Your task to perform on an android device: Open the map Image 0: 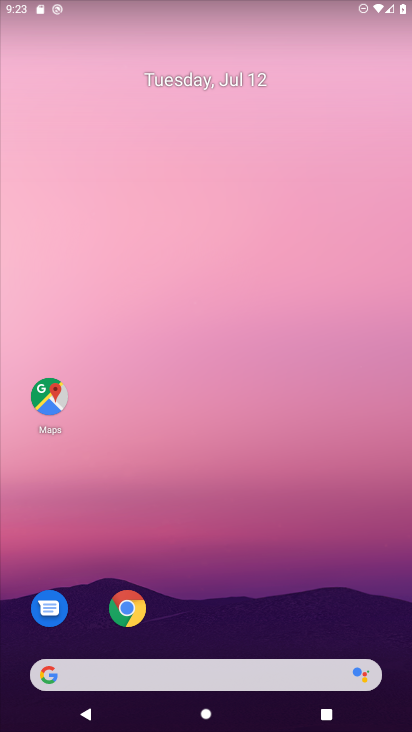
Step 0: drag from (198, 645) to (199, 175)
Your task to perform on an android device: Open the map Image 1: 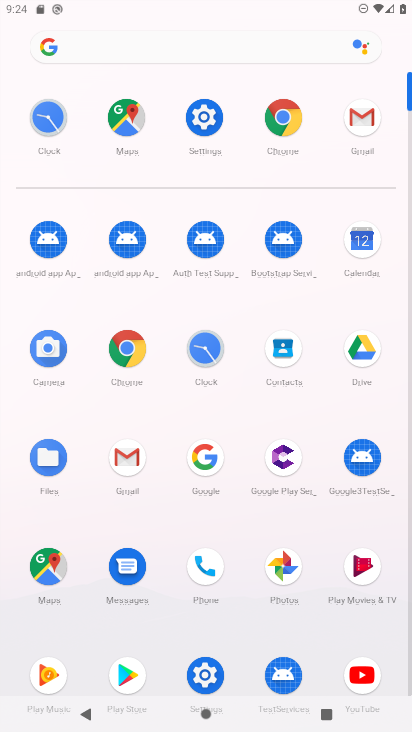
Step 1: click (144, 131)
Your task to perform on an android device: Open the map Image 2: 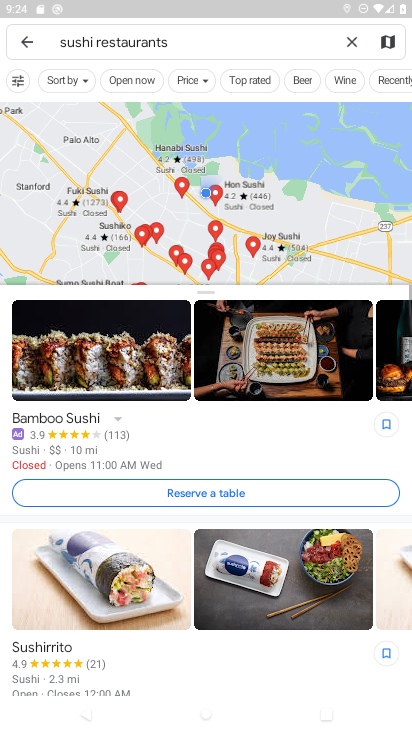
Step 2: task complete